Your task to perform on an android device: check out phone information Image 0: 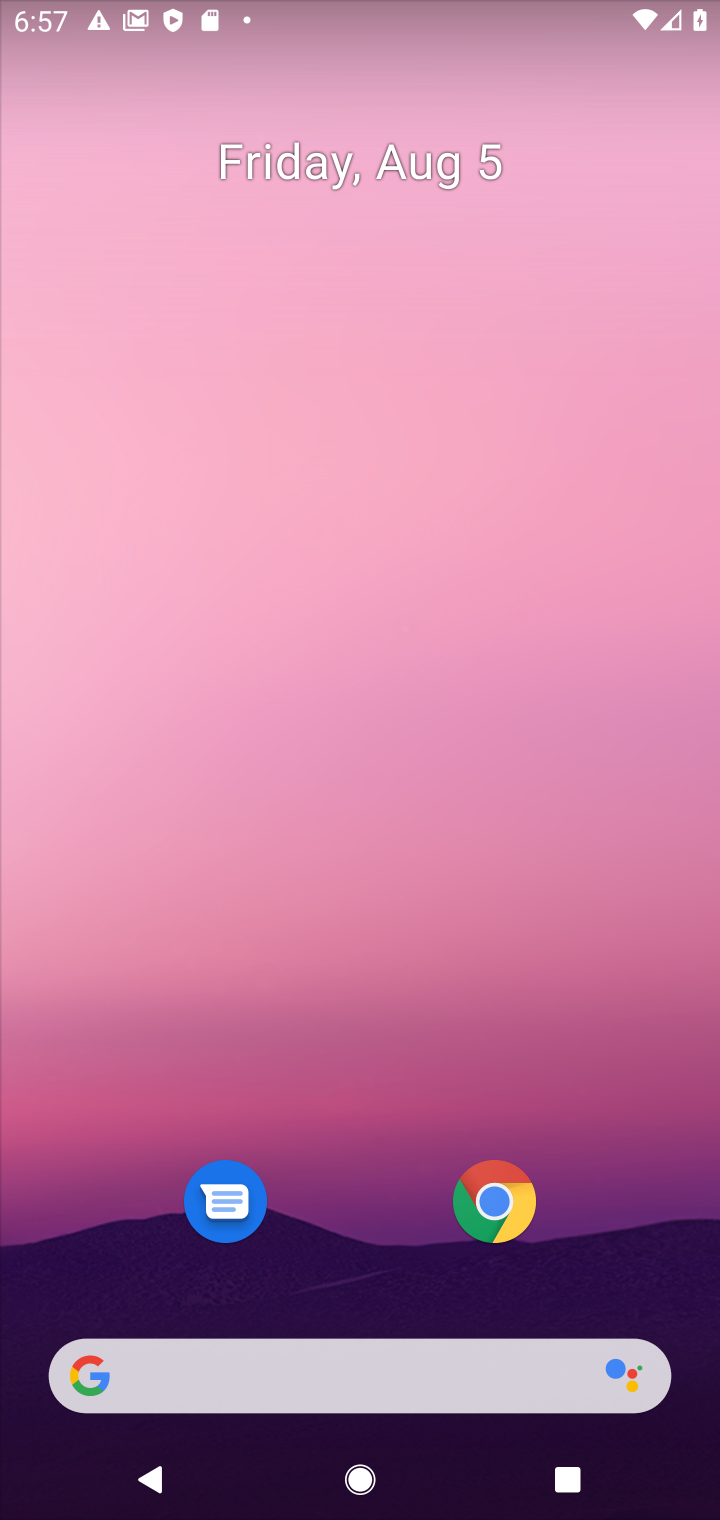
Step 0: press home button
Your task to perform on an android device: check out phone information Image 1: 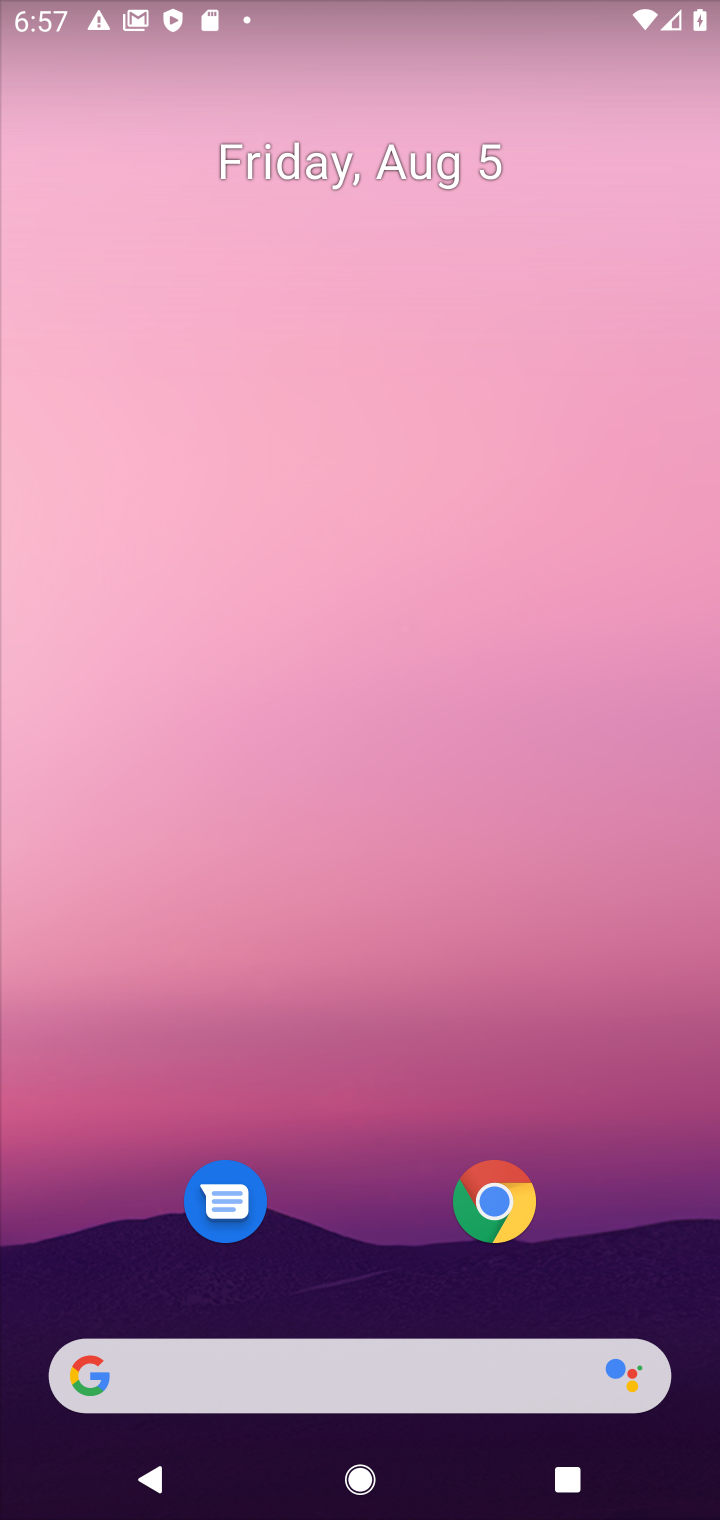
Step 1: drag from (495, 1373) to (334, 532)
Your task to perform on an android device: check out phone information Image 2: 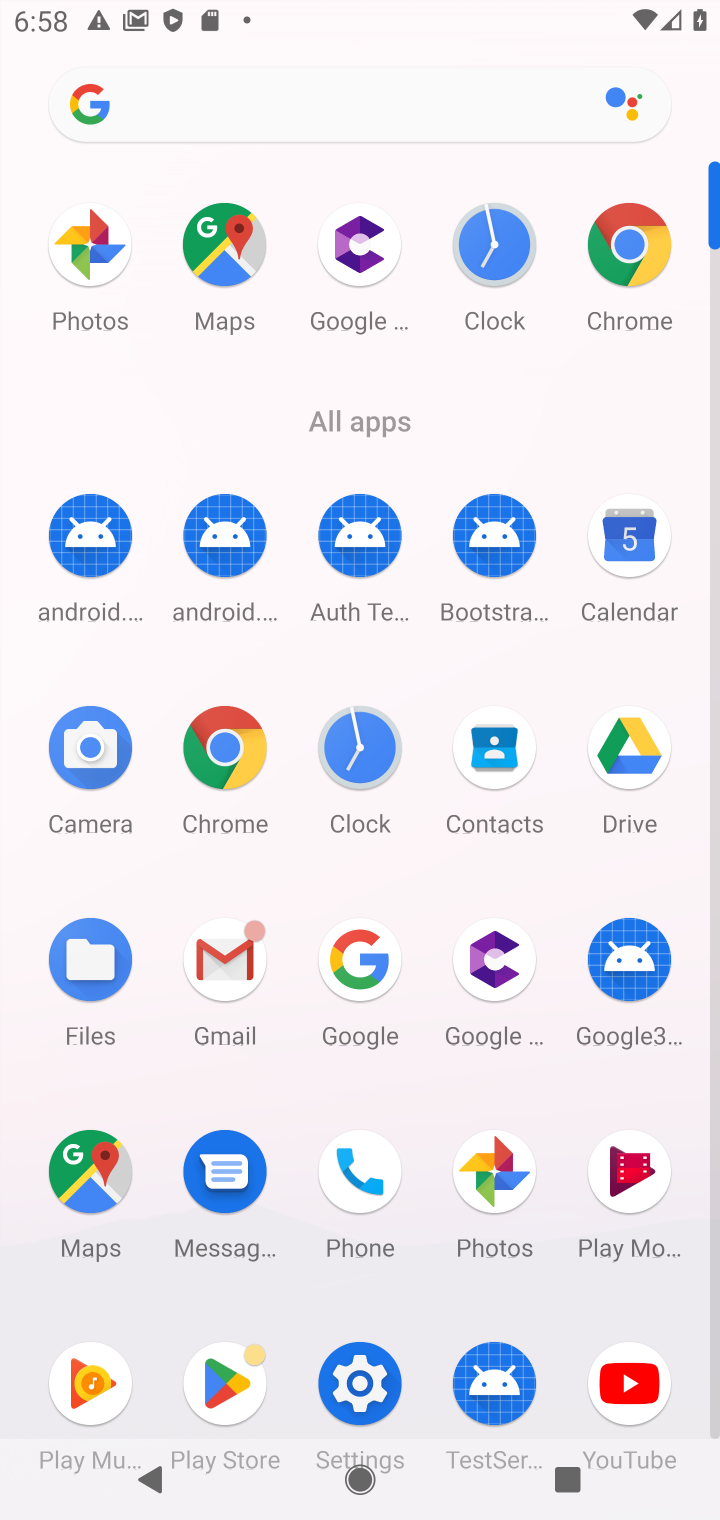
Step 2: click (373, 1395)
Your task to perform on an android device: check out phone information Image 3: 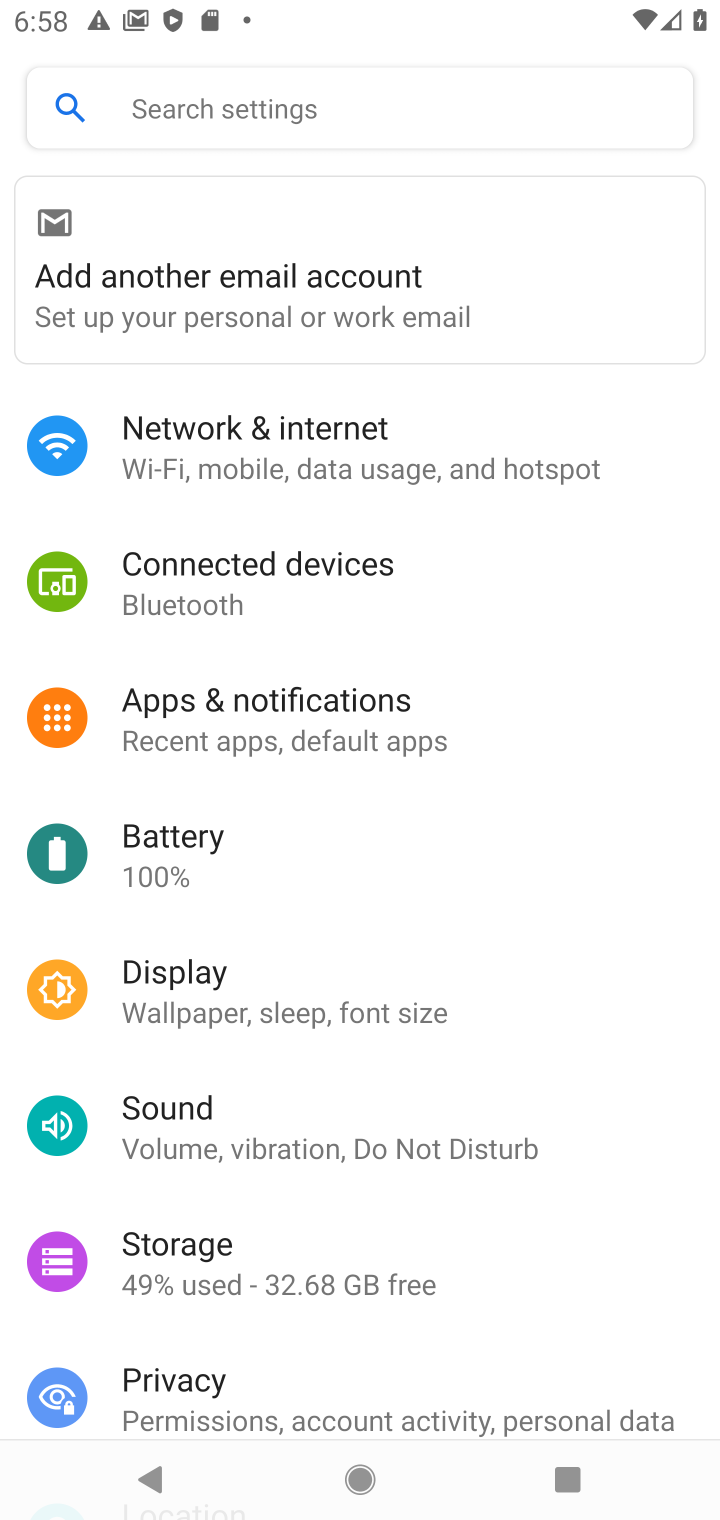
Step 3: click (170, 122)
Your task to perform on an android device: check out phone information Image 4: 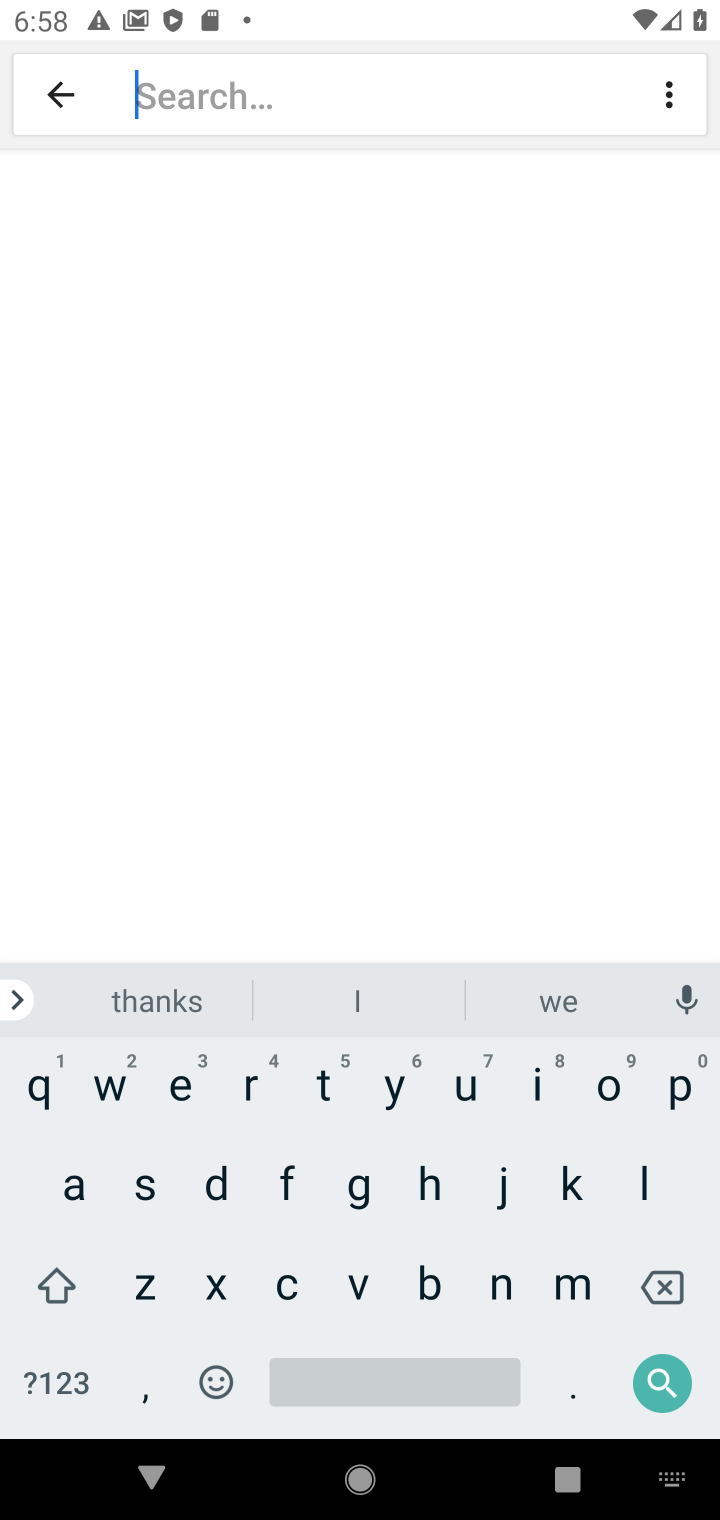
Step 4: click (54, 1168)
Your task to perform on an android device: check out phone information Image 5: 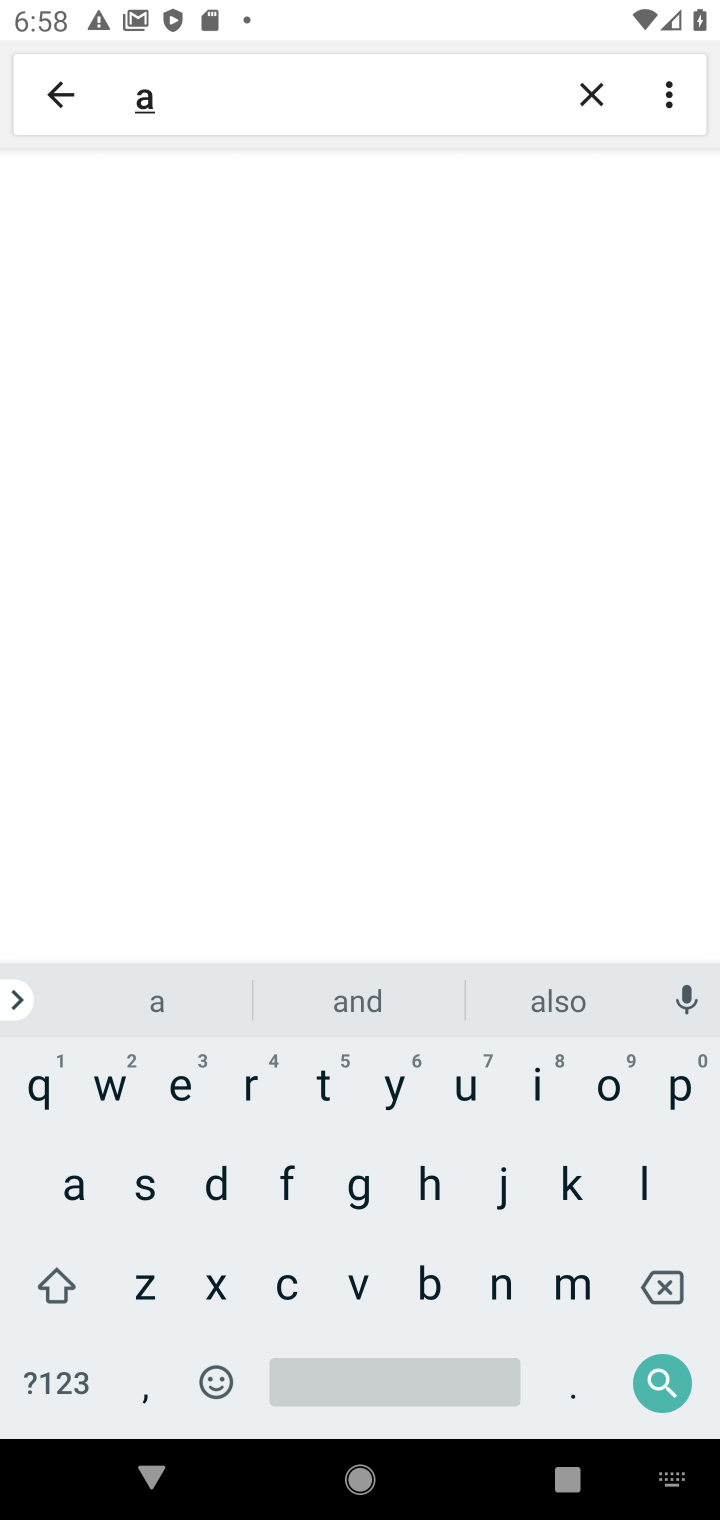
Step 5: click (417, 1285)
Your task to perform on an android device: check out phone information Image 6: 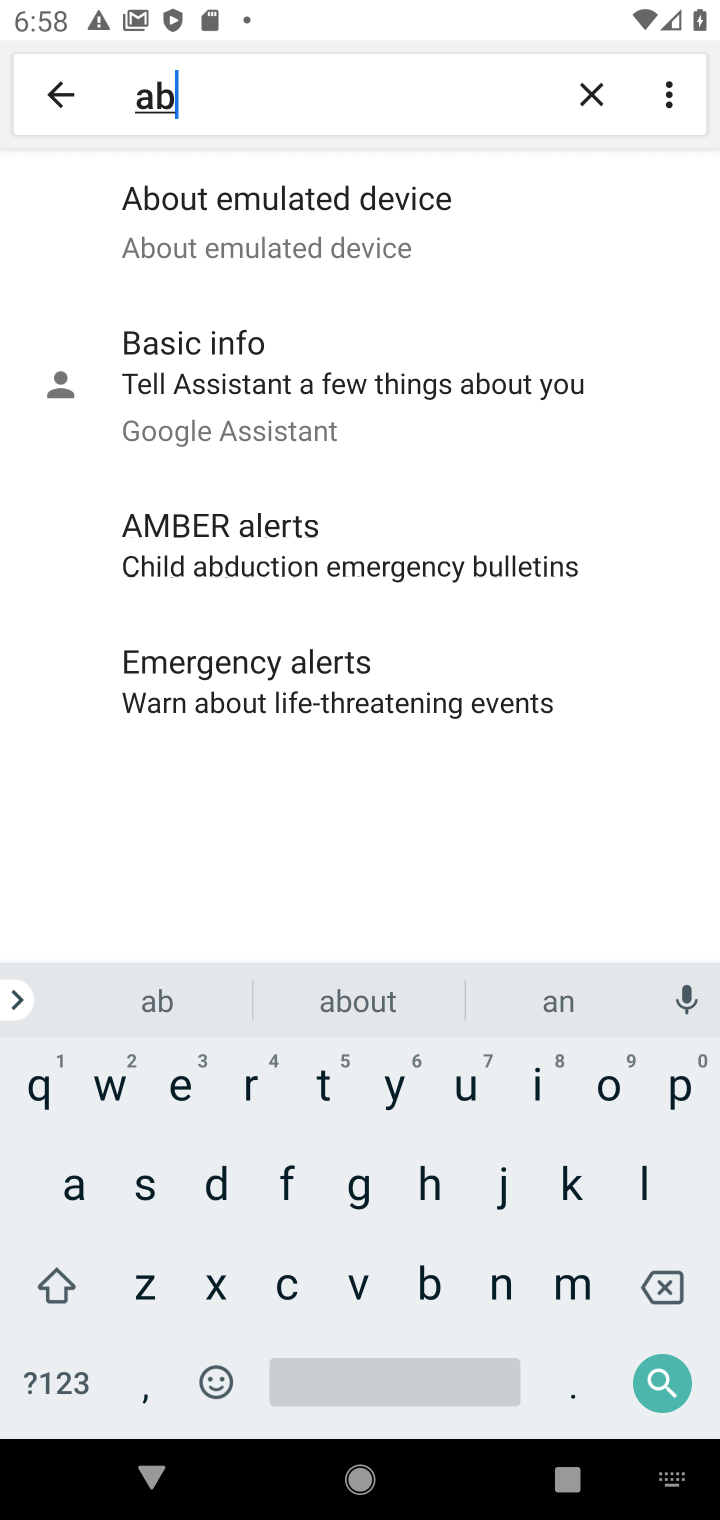
Step 6: click (353, 222)
Your task to perform on an android device: check out phone information Image 7: 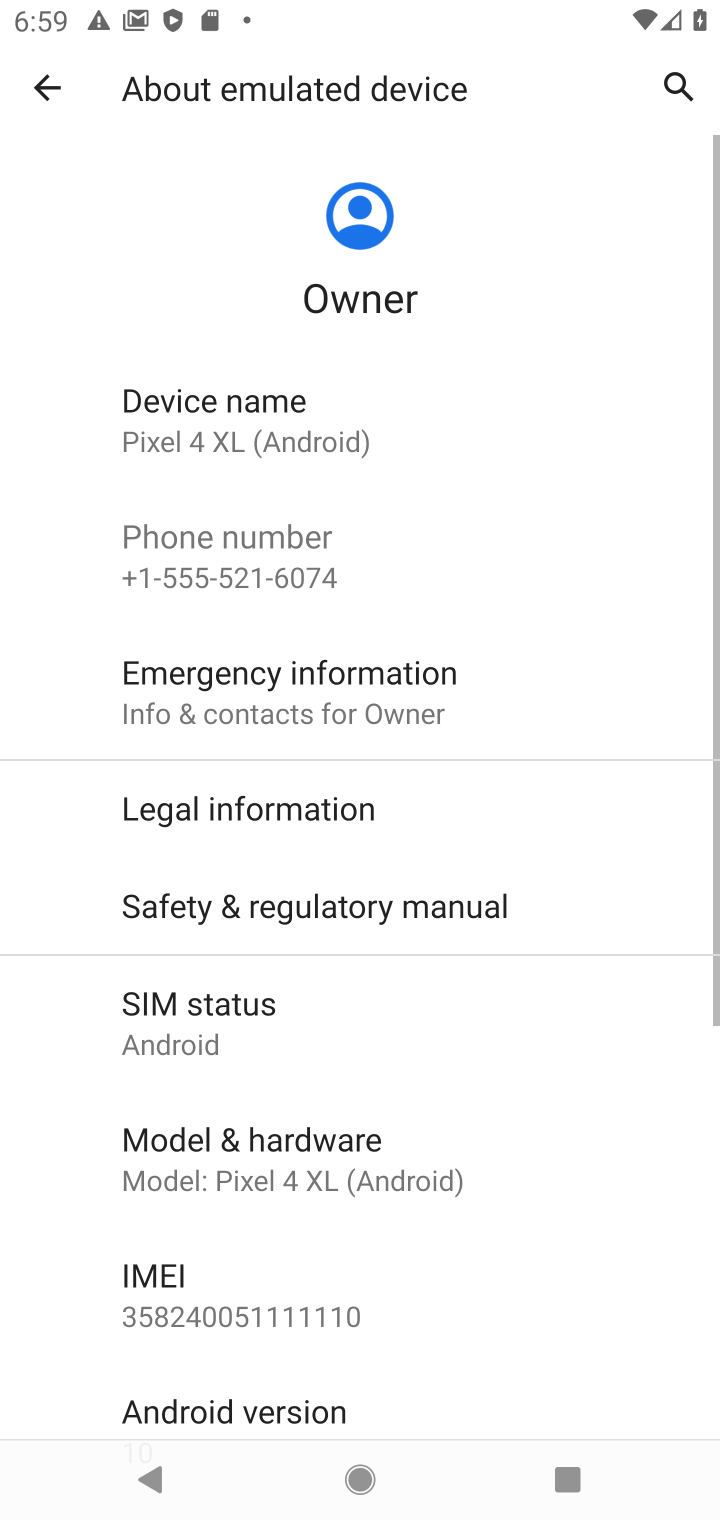
Step 7: task complete